Your task to perform on an android device: turn on airplane mode Image 0: 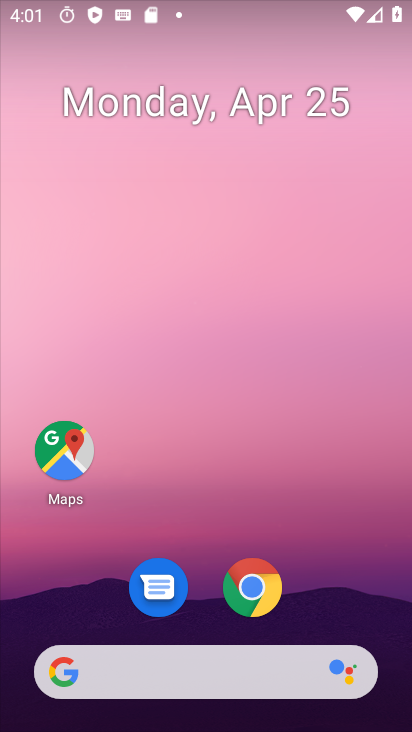
Step 0: drag from (343, 491) to (312, 173)
Your task to perform on an android device: turn on airplane mode Image 1: 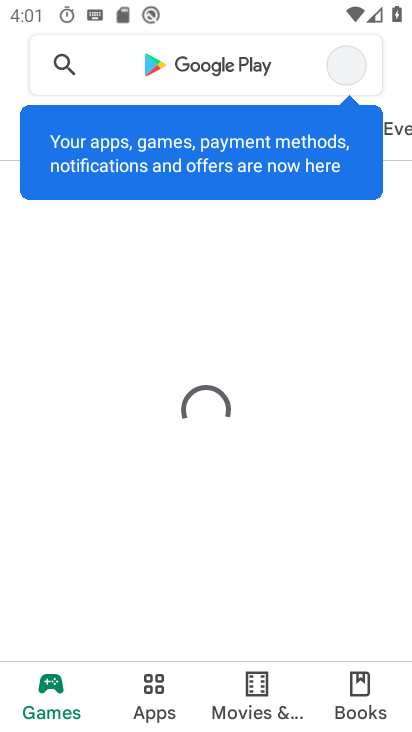
Step 1: press home button
Your task to perform on an android device: turn on airplane mode Image 2: 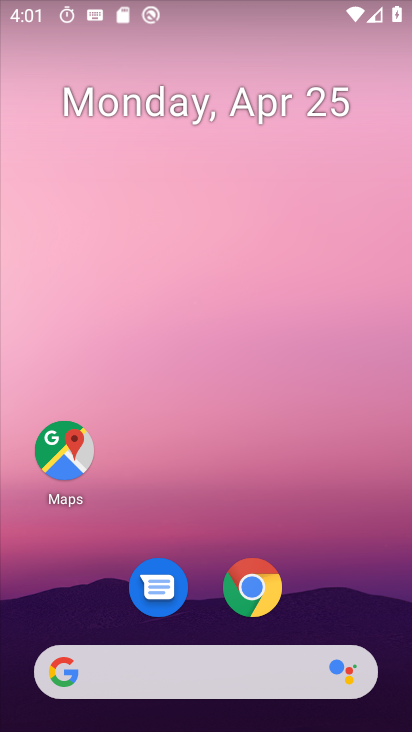
Step 2: drag from (239, 4) to (258, 588)
Your task to perform on an android device: turn on airplane mode Image 3: 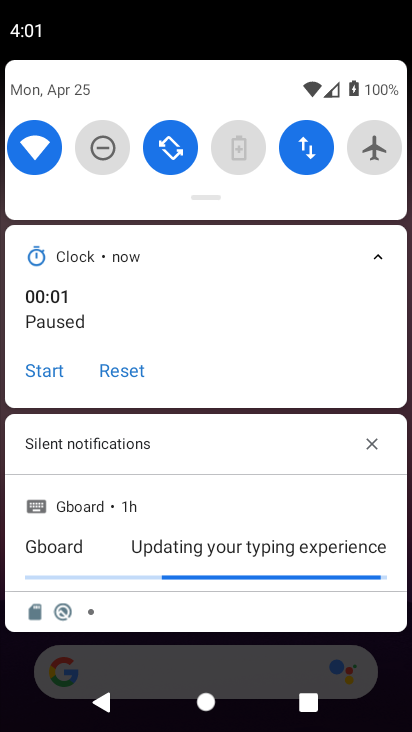
Step 3: click (380, 147)
Your task to perform on an android device: turn on airplane mode Image 4: 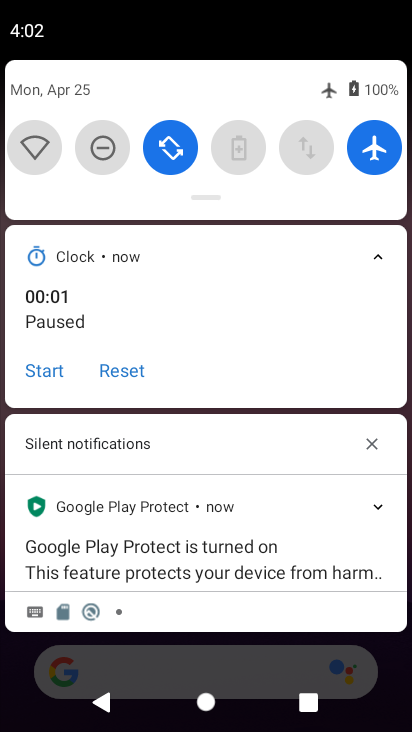
Step 4: task complete